Your task to perform on an android device: set default search engine in the chrome app Image 0: 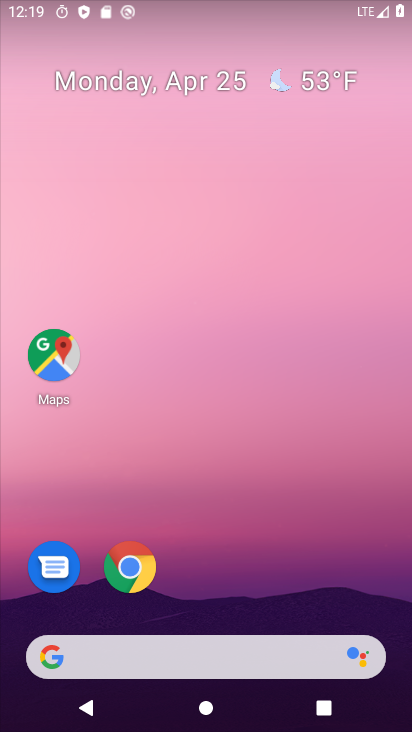
Step 0: click (133, 562)
Your task to perform on an android device: set default search engine in the chrome app Image 1: 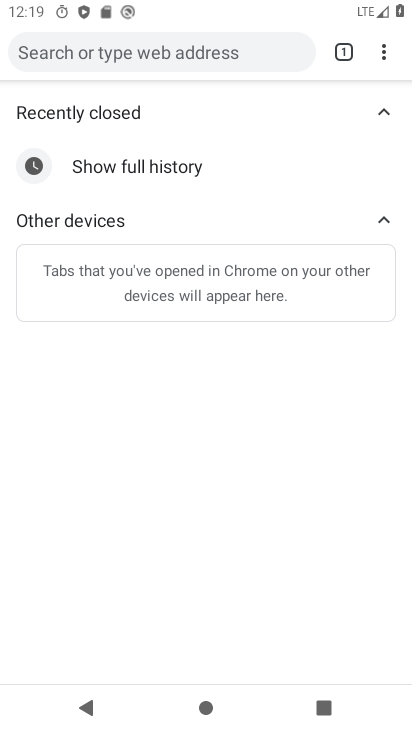
Step 1: click (382, 51)
Your task to perform on an android device: set default search engine in the chrome app Image 2: 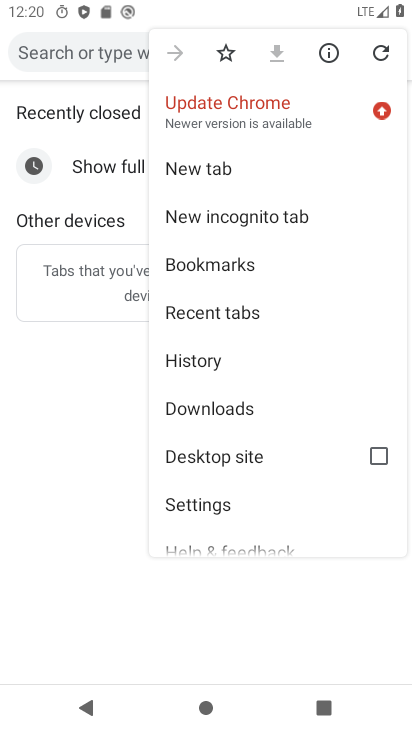
Step 2: click (229, 500)
Your task to perform on an android device: set default search engine in the chrome app Image 3: 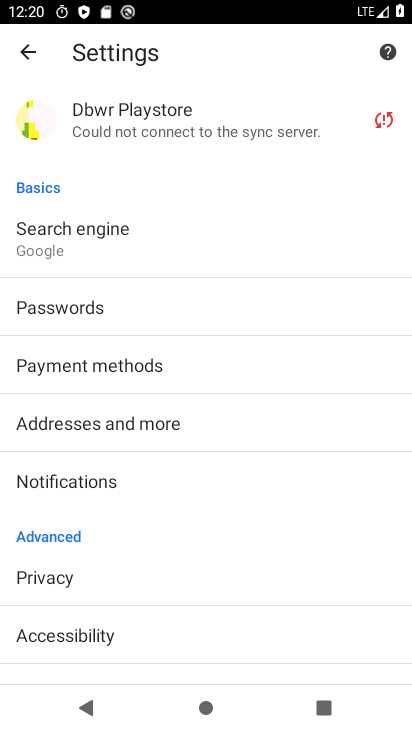
Step 3: click (109, 237)
Your task to perform on an android device: set default search engine in the chrome app Image 4: 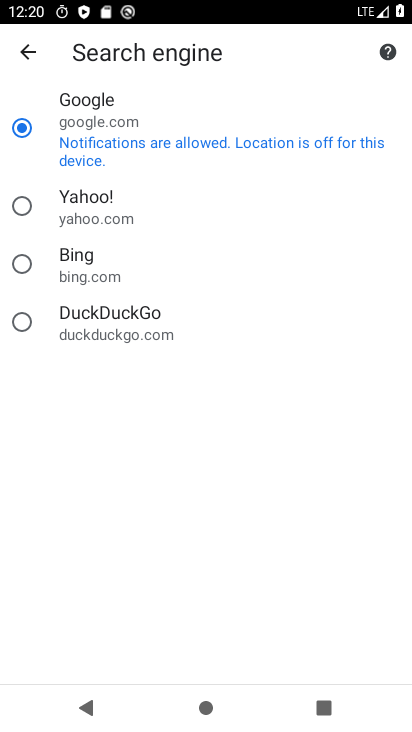
Step 4: task complete